Your task to perform on an android device: open sync settings in chrome Image 0: 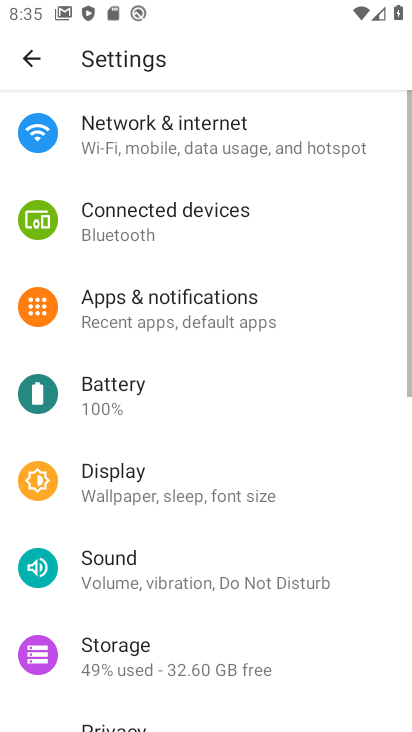
Step 0: press home button
Your task to perform on an android device: open sync settings in chrome Image 1: 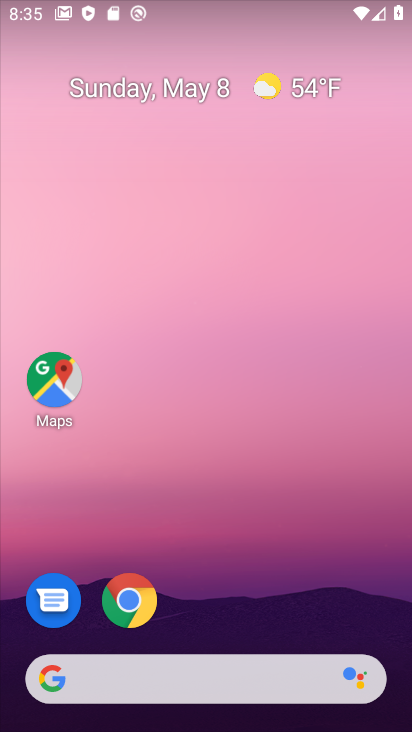
Step 1: click (142, 597)
Your task to perform on an android device: open sync settings in chrome Image 2: 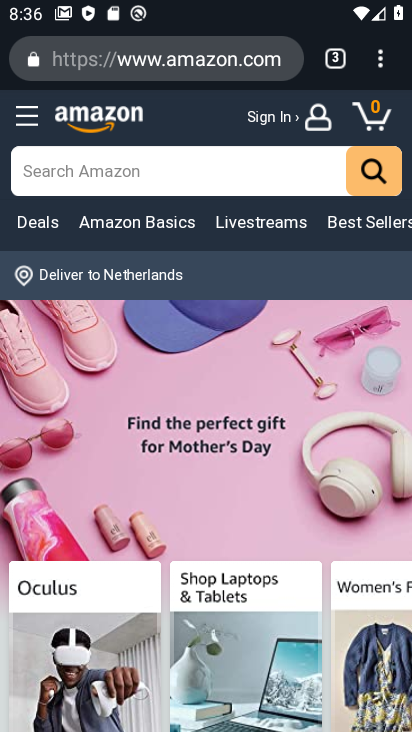
Step 2: click (386, 46)
Your task to perform on an android device: open sync settings in chrome Image 3: 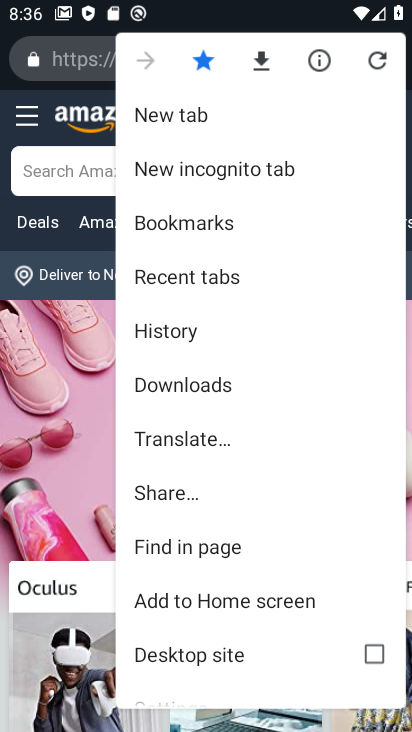
Step 3: drag from (209, 616) to (359, 200)
Your task to perform on an android device: open sync settings in chrome Image 4: 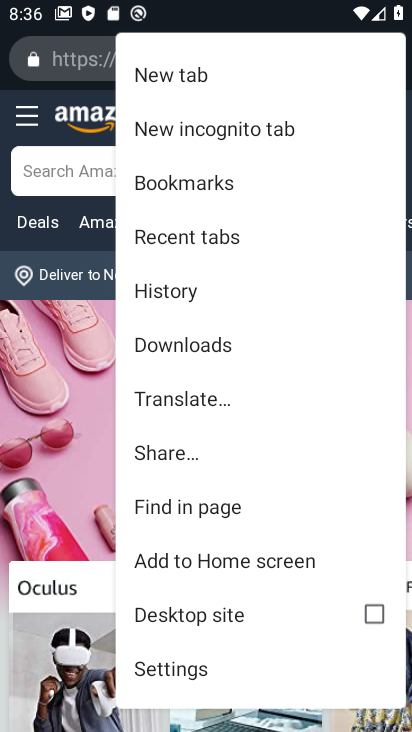
Step 4: click (179, 673)
Your task to perform on an android device: open sync settings in chrome Image 5: 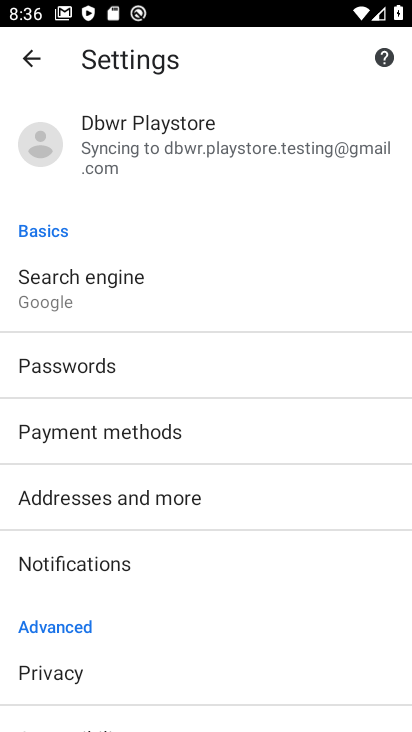
Step 5: click (187, 164)
Your task to perform on an android device: open sync settings in chrome Image 6: 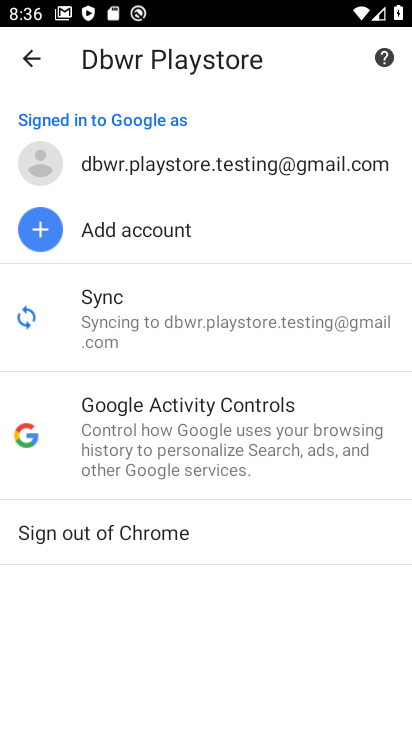
Step 6: click (123, 317)
Your task to perform on an android device: open sync settings in chrome Image 7: 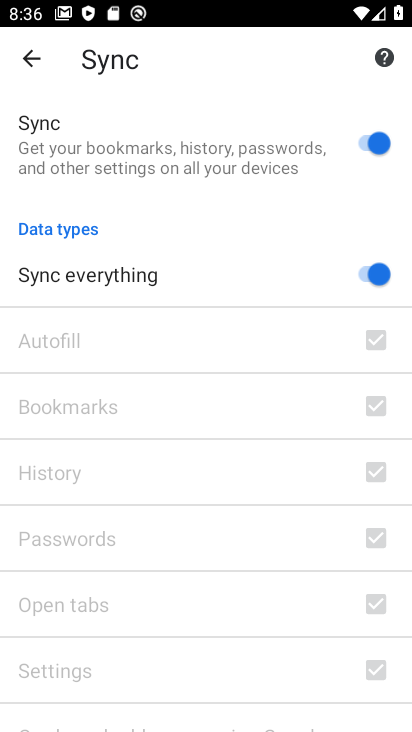
Step 7: task complete